Your task to perform on an android device: turn on data saver in the chrome app Image 0: 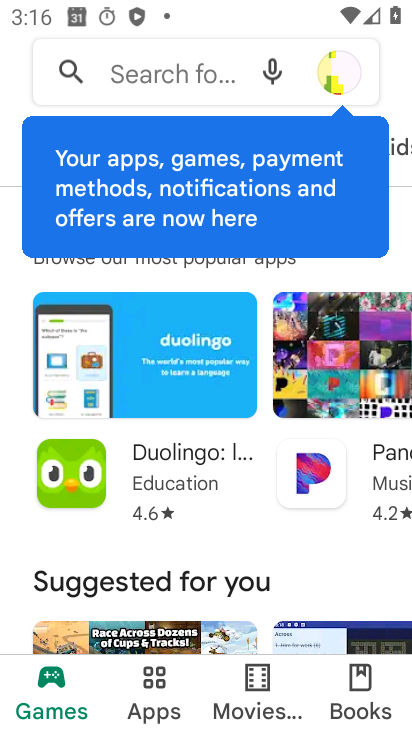
Step 0: press home button
Your task to perform on an android device: turn on data saver in the chrome app Image 1: 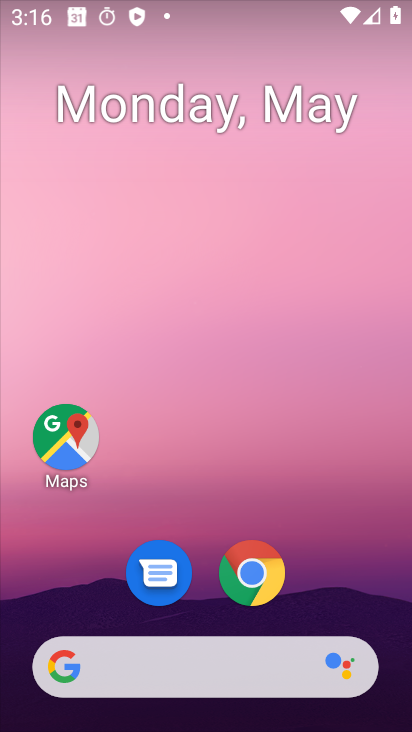
Step 1: drag from (349, 631) to (172, 151)
Your task to perform on an android device: turn on data saver in the chrome app Image 2: 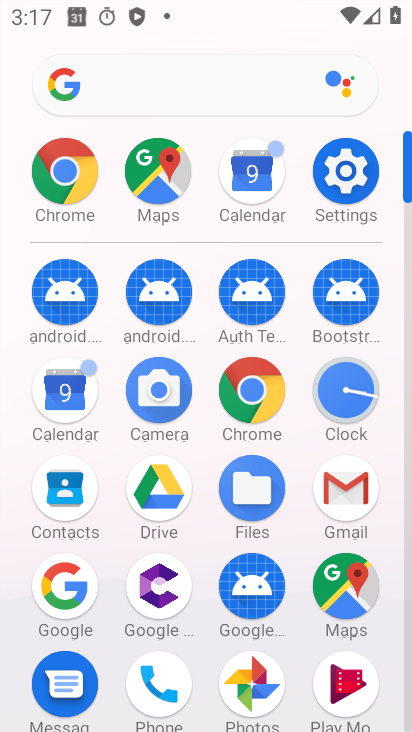
Step 2: click (61, 177)
Your task to perform on an android device: turn on data saver in the chrome app Image 3: 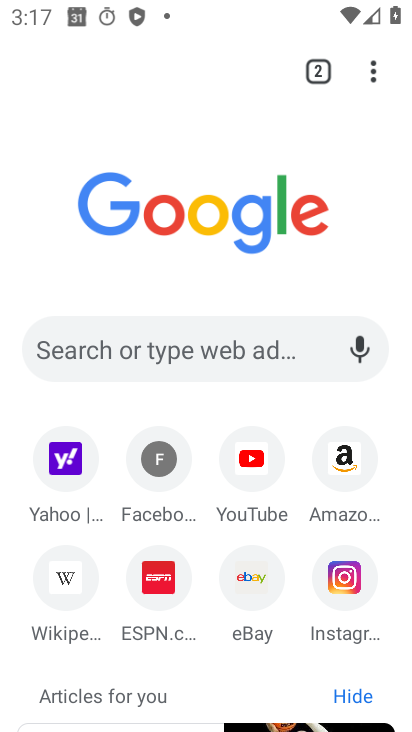
Step 3: click (366, 63)
Your task to perform on an android device: turn on data saver in the chrome app Image 4: 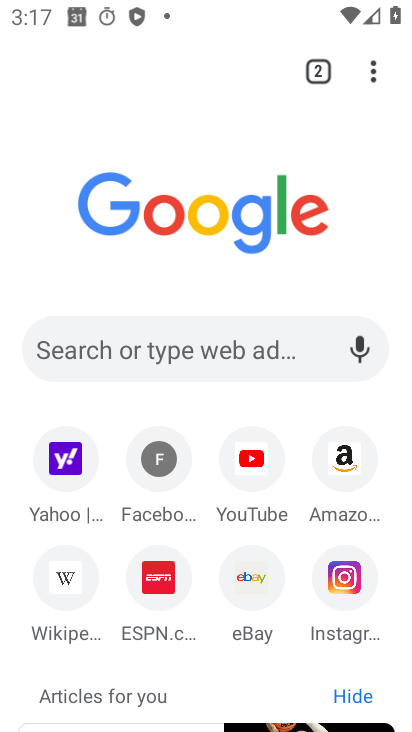
Step 4: click (368, 57)
Your task to perform on an android device: turn on data saver in the chrome app Image 5: 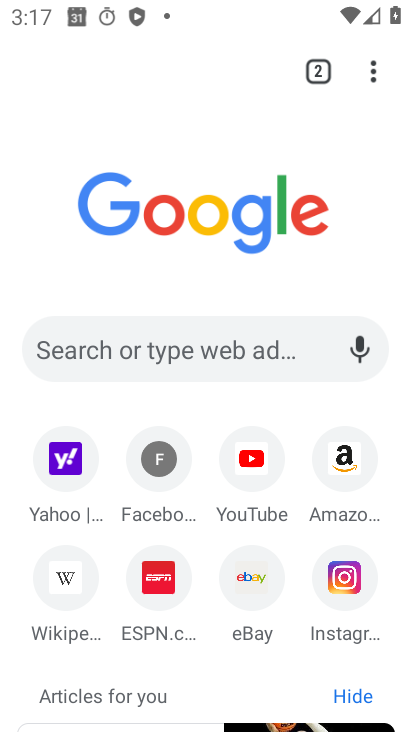
Step 5: drag from (375, 66) to (137, 607)
Your task to perform on an android device: turn on data saver in the chrome app Image 6: 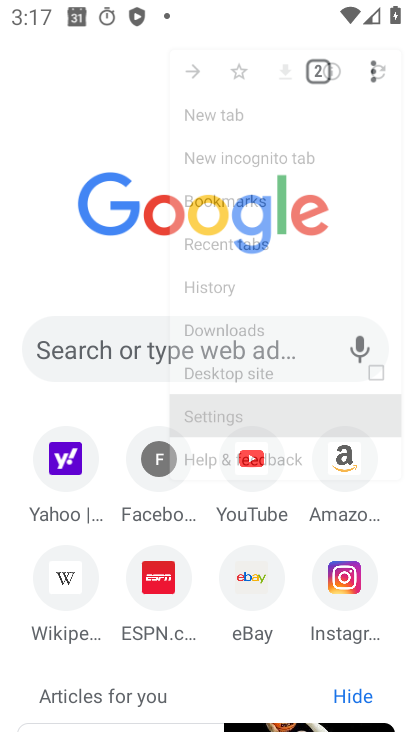
Step 6: click (138, 615)
Your task to perform on an android device: turn on data saver in the chrome app Image 7: 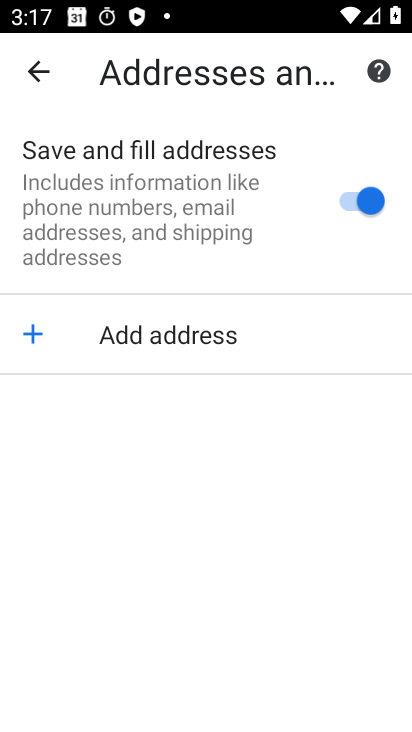
Step 7: click (26, 69)
Your task to perform on an android device: turn on data saver in the chrome app Image 8: 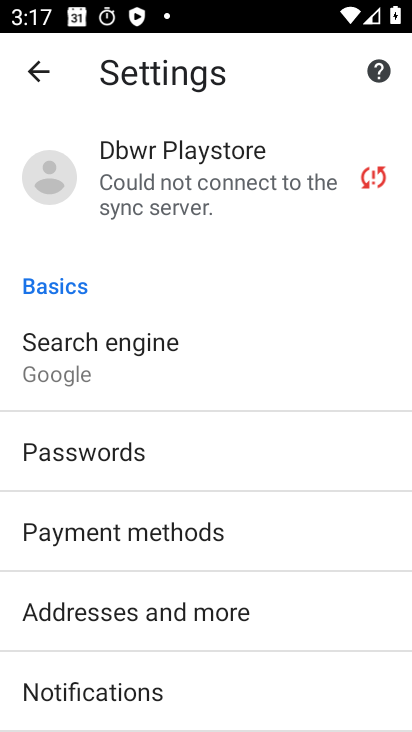
Step 8: drag from (118, 636) to (90, 175)
Your task to perform on an android device: turn on data saver in the chrome app Image 9: 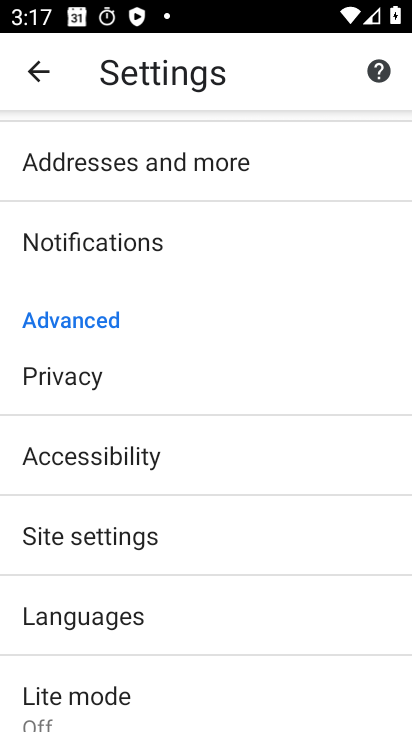
Step 9: click (80, 684)
Your task to perform on an android device: turn on data saver in the chrome app Image 10: 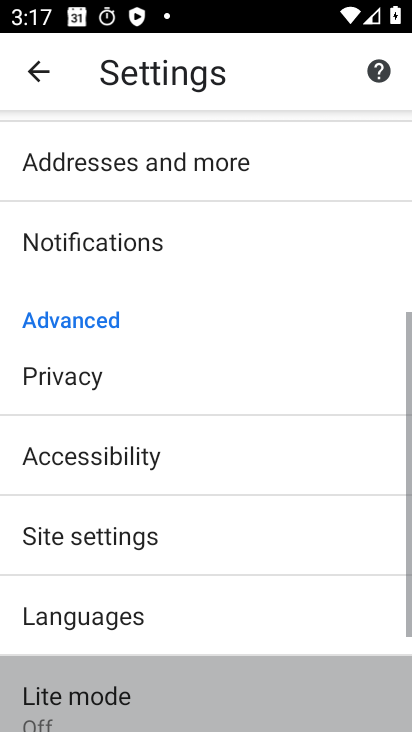
Step 10: click (81, 688)
Your task to perform on an android device: turn on data saver in the chrome app Image 11: 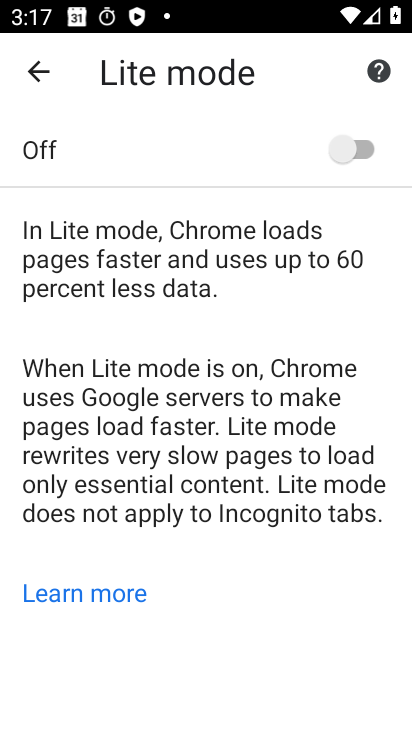
Step 11: click (342, 158)
Your task to perform on an android device: turn on data saver in the chrome app Image 12: 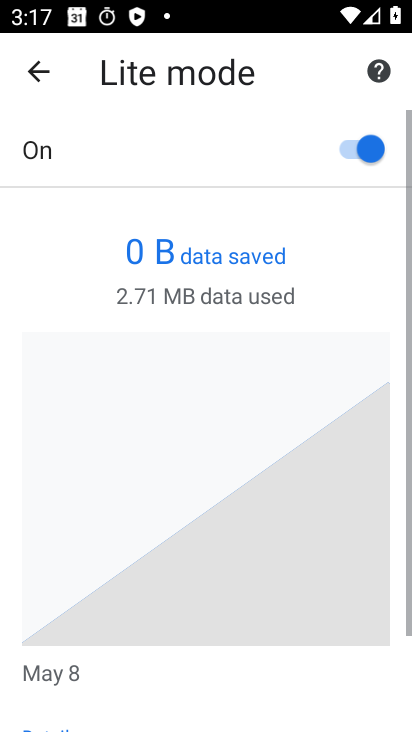
Step 12: task complete